Your task to perform on an android device: open chrome privacy settings Image 0: 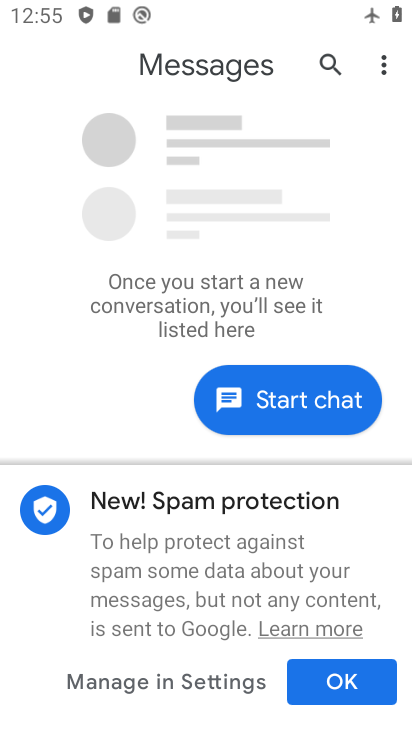
Step 0: press back button
Your task to perform on an android device: open chrome privacy settings Image 1: 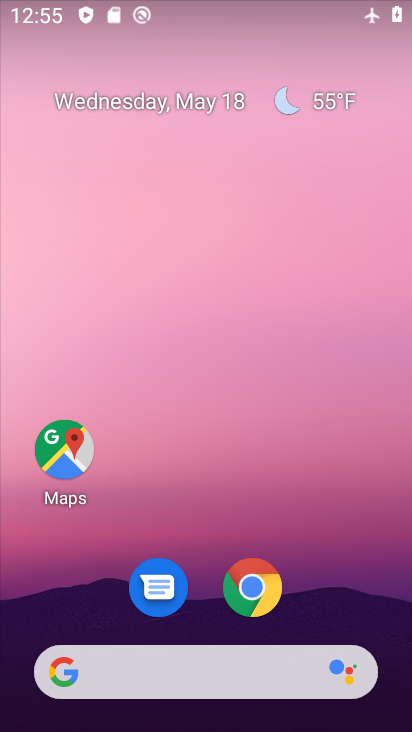
Step 1: click (259, 570)
Your task to perform on an android device: open chrome privacy settings Image 2: 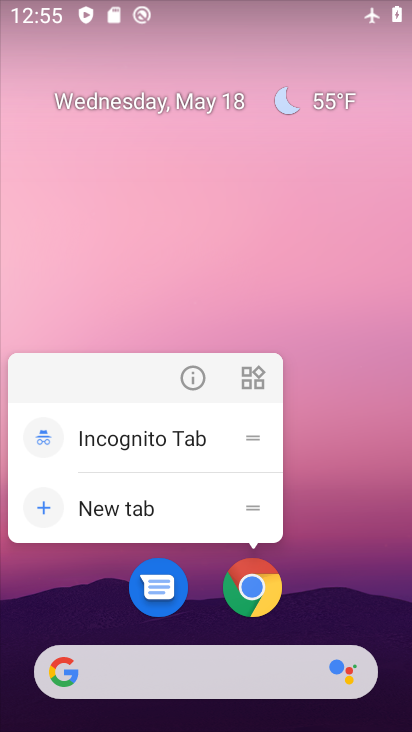
Step 2: click (251, 589)
Your task to perform on an android device: open chrome privacy settings Image 3: 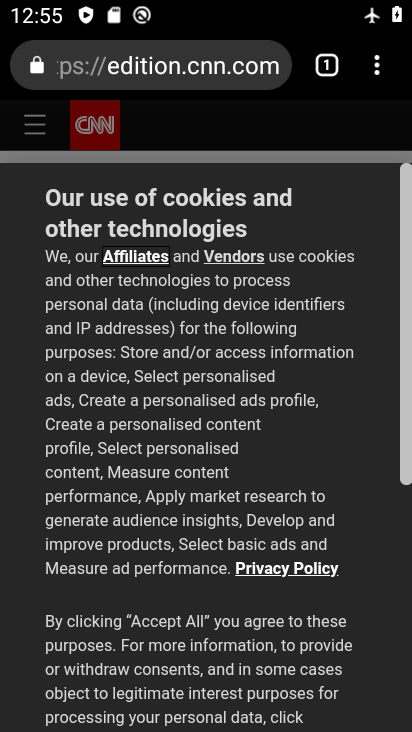
Step 3: drag from (385, 63) to (144, 644)
Your task to perform on an android device: open chrome privacy settings Image 4: 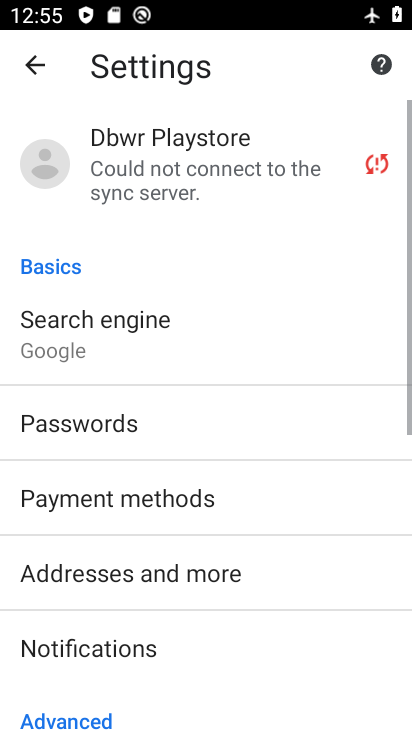
Step 4: drag from (154, 593) to (230, 73)
Your task to perform on an android device: open chrome privacy settings Image 5: 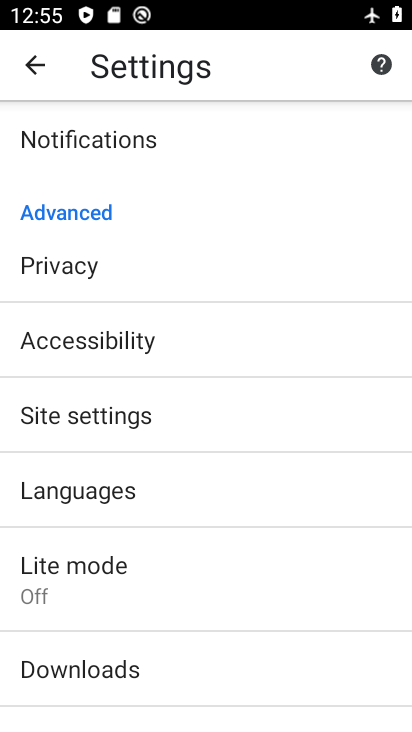
Step 5: click (92, 263)
Your task to perform on an android device: open chrome privacy settings Image 6: 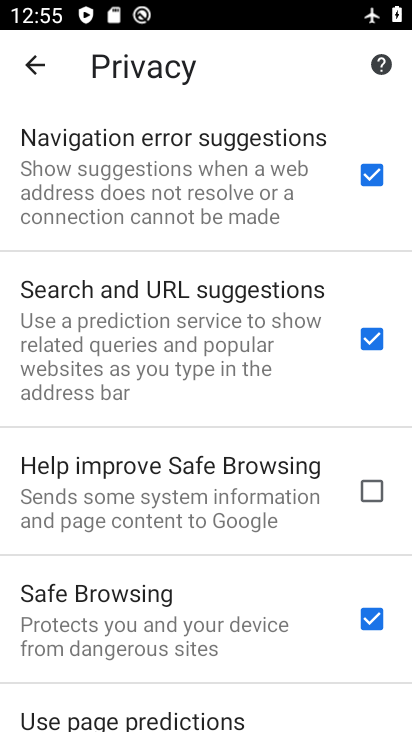
Step 6: task complete